Your task to perform on an android device: Empty the shopping cart on amazon. Search for "duracell triple a" on amazon, select the first entry, and add it to the cart. Image 0: 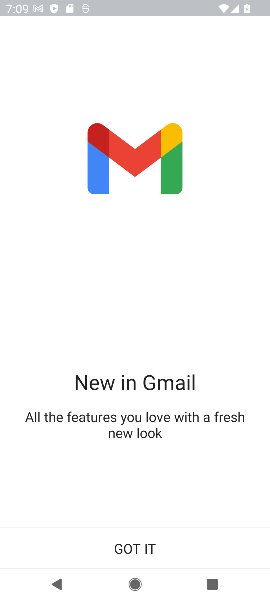
Step 0: press home button
Your task to perform on an android device: Empty the shopping cart on amazon. Search for "duracell triple a" on amazon, select the first entry, and add it to the cart. Image 1: 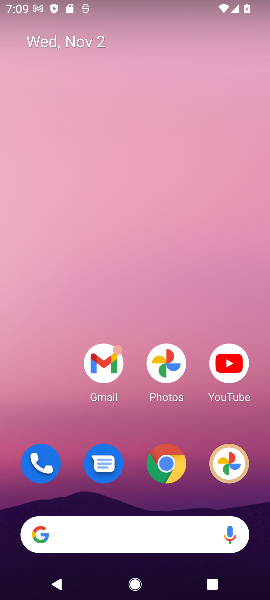
Step 1: click (170, 471)
Your task to perform on an android device: Empty the shopping cart on amazon. Search for "duracell triple a" on amazon, select the first entry, and add it to the cart. Image 2: 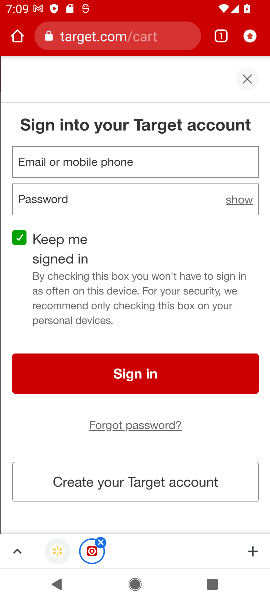
Step 2: click (113, 45)
Your task to perform on an android device: Empty the shopping cart on amazon. Search for "duracell triple a" on amazon, select the first entry, and add it to the cart. Image 3: 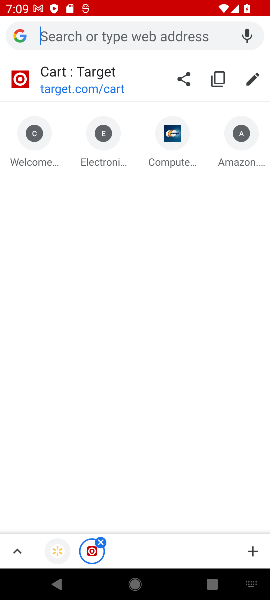
Step 3: click (241, 159)
Your task to perform on an android device: Empty the shopping cart on amazon. Search for "duracell triple a" on amazon, select the first entry, and add it to the cart. Image 4: 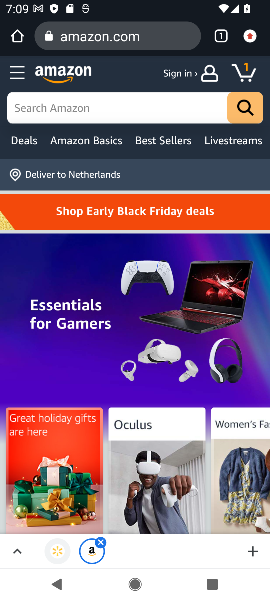
Step 4: click (238, 68)
Your task to perform on an android device: Empty the shopping cart on amazon. Search for "duracell triple a" on amazon, select the first entry, and add it to the cart. Image 5: 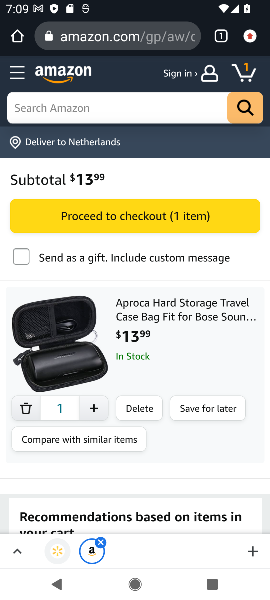
Step 5: click (131, 409)
Your task to perform on an android device: Empty the shopping cart on amazon. Search for "duracell triple a" on amazon, select the first entry, and add it to the cart. Image 6: 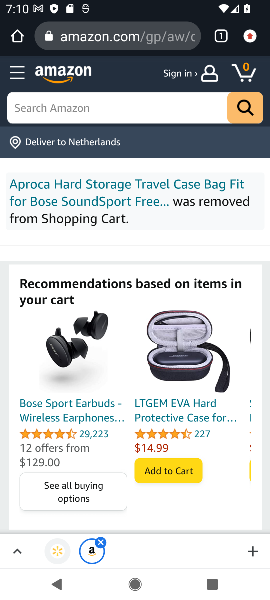
Step 6: click (105, 109)
Your task to perform on an android device: Empty the shopping cart on amazon. Search for "duracell triple a" on amazon, select the first entry, and add it to the cart. Image 7: 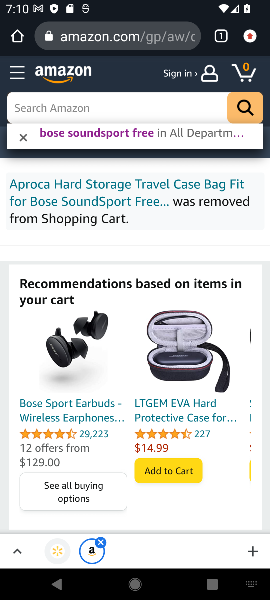
Step 7: type "duracell triple a"
Your task to perform on an android device: Empty the shopping cart on amazon. Search for "duracell triple a" on amazon, select the first entry, and add it to the cart. Image 8: 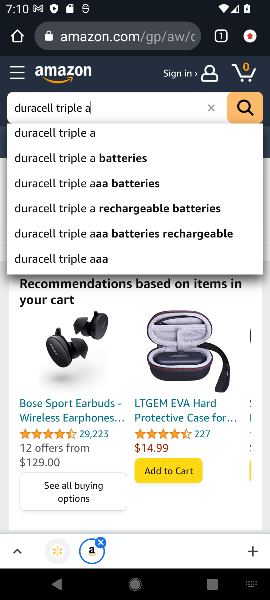
Step 8: click (69, 135)
Your task to perform on an android device: Empty the shopping cart on amazon. Search for "duracell triple a" on amazon, select the first entry, and add it to the cart. Image 9: 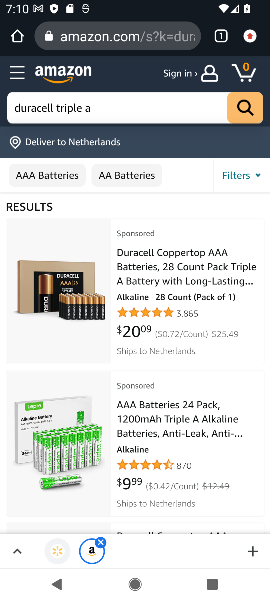
Step 9: click (100, 301)
Your task to perform on an android device: Empty the shopping cart on amazon. Search for "duracell triple a" on amazon, select the first entry, and add it to the cart. Image 10: 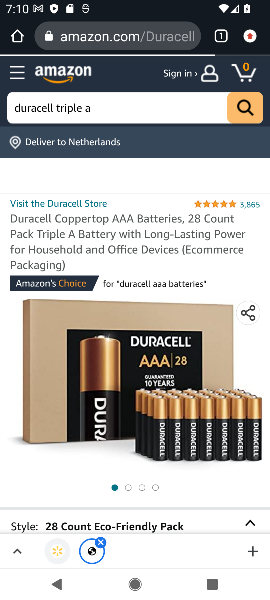
Step 10: drag from (135, 377) to (115, 112)
Your task to perform on an android device: Empty the shopping cart on amazon. Search for "duracell triple a" on amazon, select the first entry, and add it to the cart. Image 11: 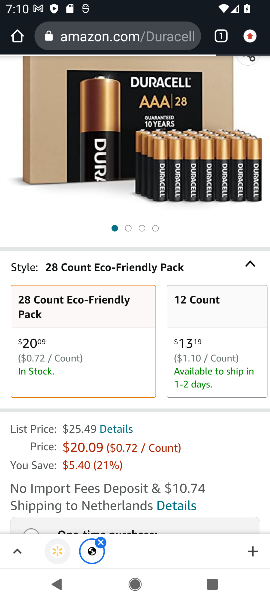
Step 11: drag from (128, 380) to (120, 117)
Your task to perform on an android device: Empty the shopping cart on amazon. Search for "duracell triple a" on amazon, select the first entry, and add it to the cart. Image 12: 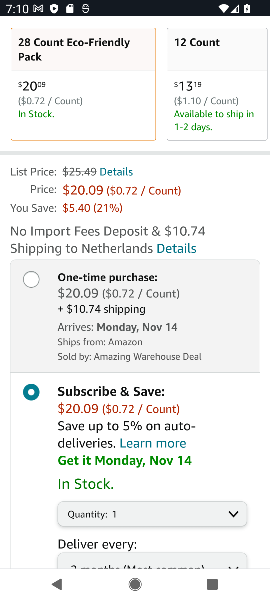
Step 12: click (31, 277)
Your task to perform on an android device: Empty the shopping cart on amazon. Search for "duracell triple a" on amazon, select the first entry, and add it to the cart. Image 13: 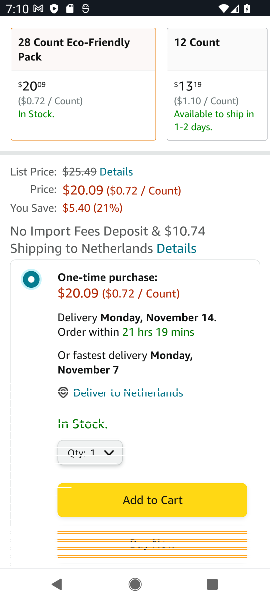
Step 13: click (150, 496)
Your task to perform on an android device: Empty the shopping cart on amazon. Search for "duracell triple a" on amazon, select the first entry, and add it to the cart. Image 14: 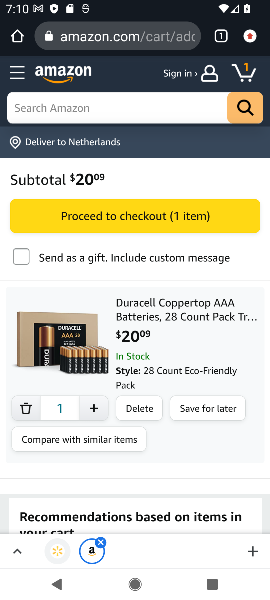
Step 14: task complete